Your task to perform on an android device: toggle javascript in the chrome app Image 0: 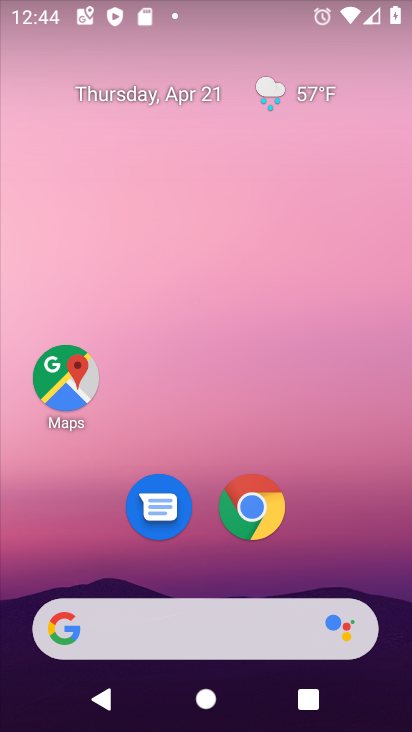
Step 0: click (253, 509)
Your task to perform on an android device: toggle javascript in the chrome app Image 1: 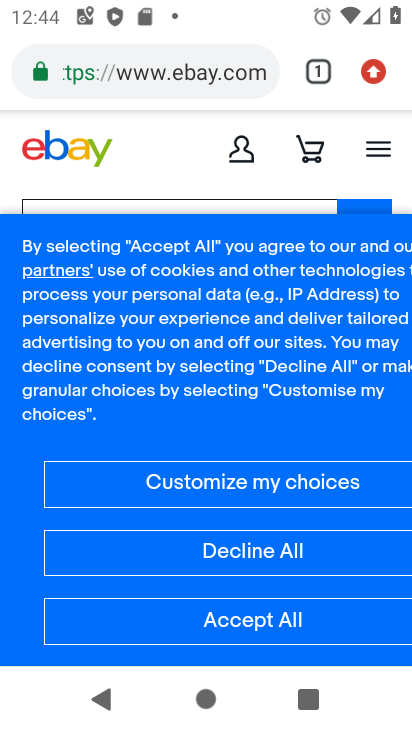
Step 1: click (375, 70)
Your task to perform on an android device: toggle javascript in the chrome app Image 2: 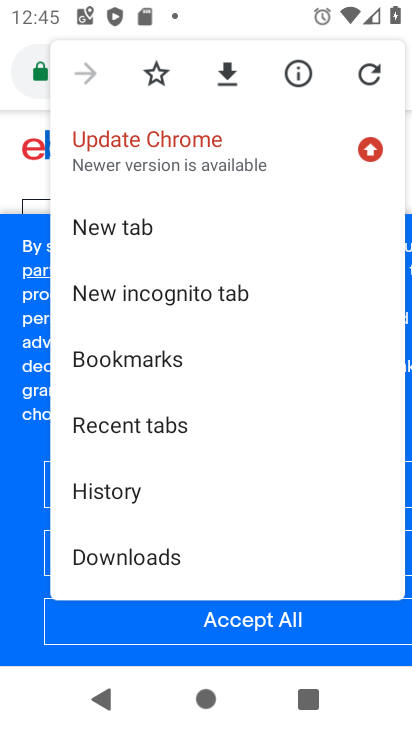
Step 2: drag from (123, 471) to (231, 306)
Your task to perform on an android device: toggle javascript in the chrome app Image 3: 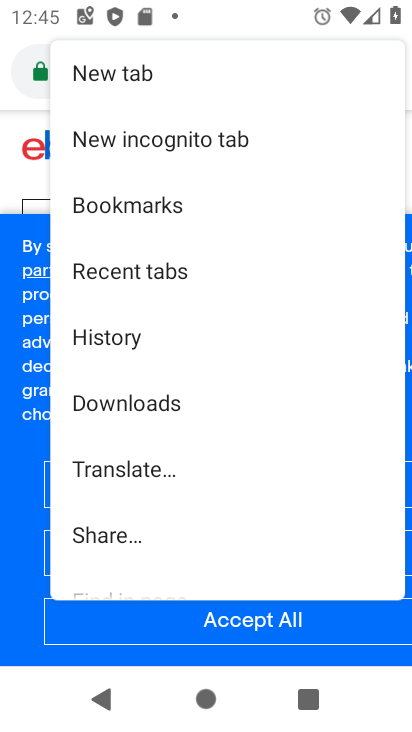
Step 3: drag from (170, 429) to (225, 303)
Your task to perform on an android device: toggle javascript in the chrome app Image 4: 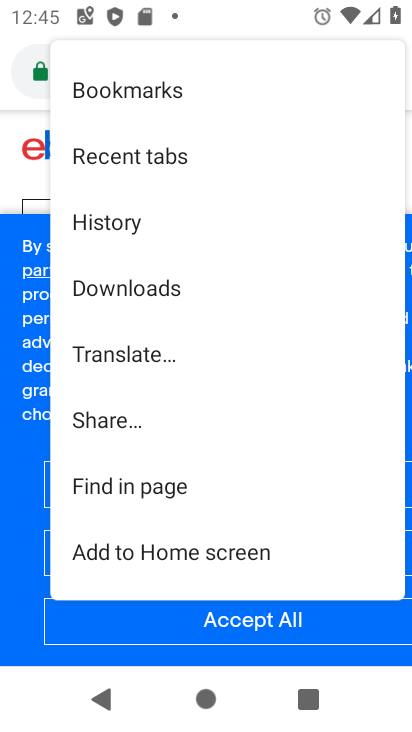
Step 4: drag from (166, 446) to (236, 340)
Your task to perform on an android device: toggle javascript in the chrome app Image 5: 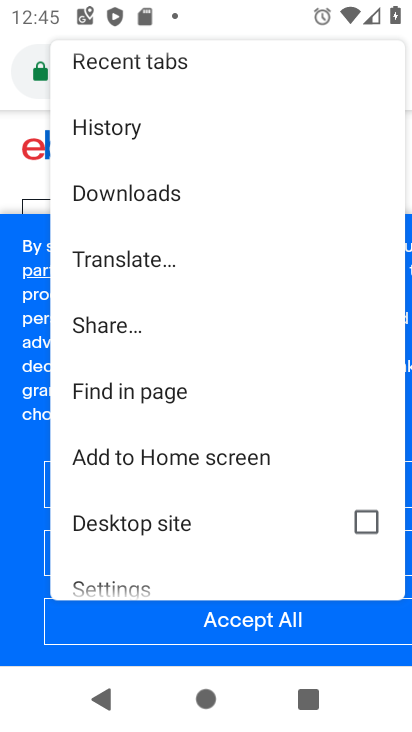
Step 5: drag from (179, 492) to (230, 362)
Your task to perform on an android device: toggle javascript in the chrome app Image 6: 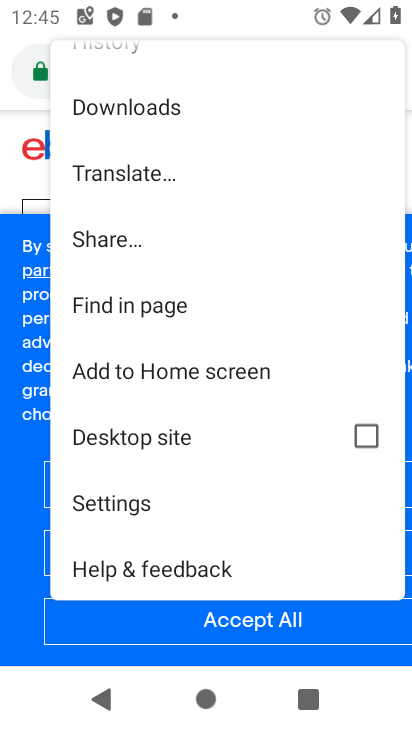
Step 6: click (146, 498)
Your task to perform on an android device: toggle javascript in the chrome app Image 7: 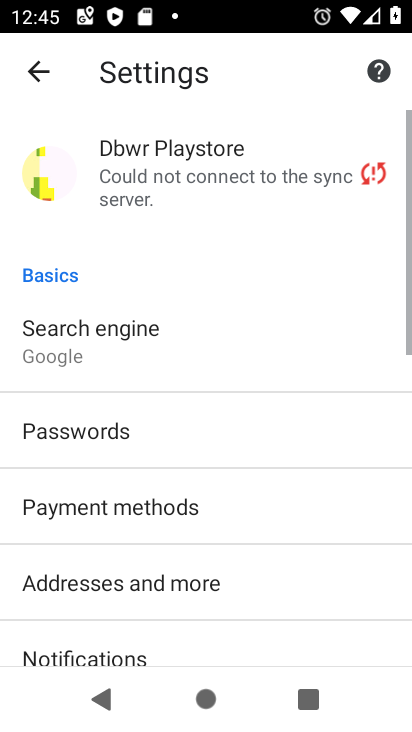
Step 7: drag from (160, 443) to (218, 336)
Your task to perform on an android device: toggle javascript in the chrome app Image 8: 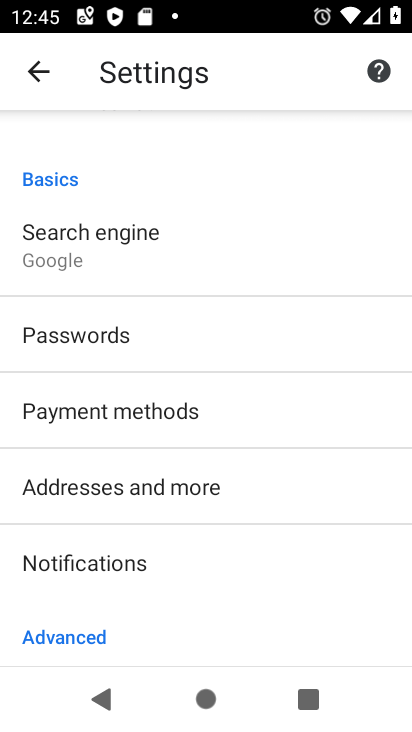
Step 8: drag from (138, 465) to (219, 364)
Your task to perform on an android device: toggle javascript in the chrome app Image 9: 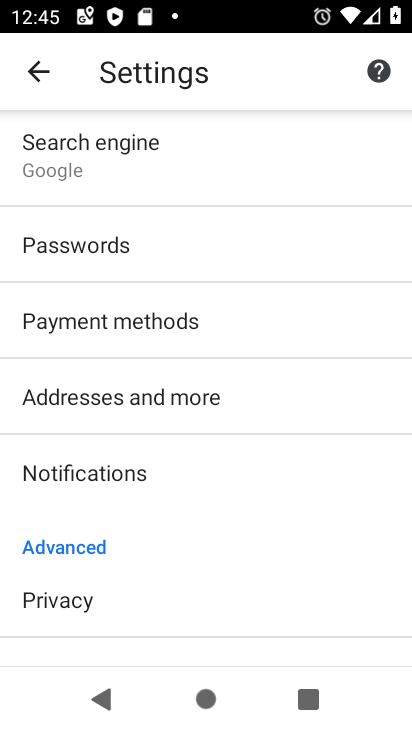
Step 9: drag from (158, 466) to (250, 350)
Your task to perform on an android device: toggle javascript in the chrome app Image 10: 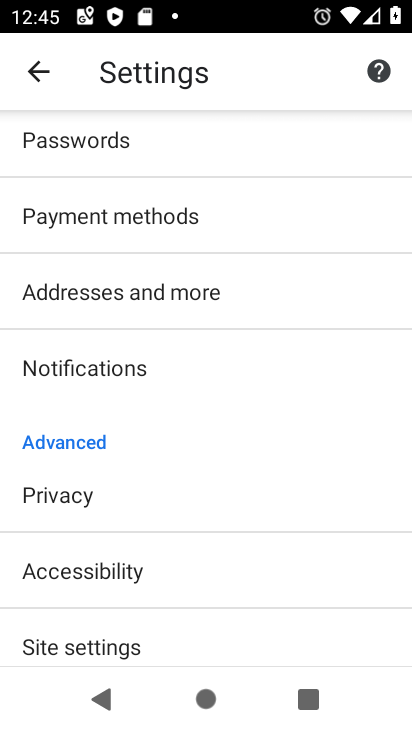
Step 10: drag from (138, 508) to (214, 411)
Your task to perform on an android device: toggle javascript in the chrome app Image 11: 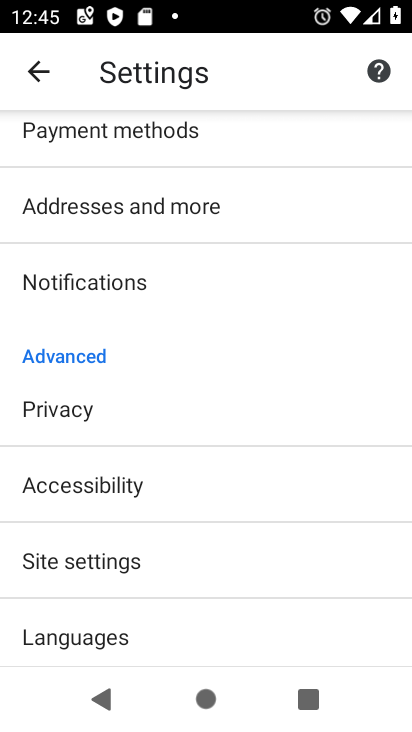
Step 11: click (99, 556)
Your task to perform on an android device: toggle javascript in the chrome app Image 12: 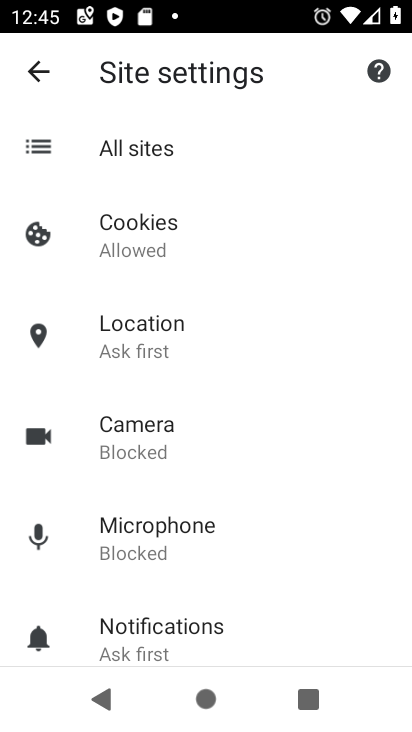
Step 12: drag from (199, 458) to (259, 373)
Your task to perform on an android device: toggle javascript in the chrome app Image 13: 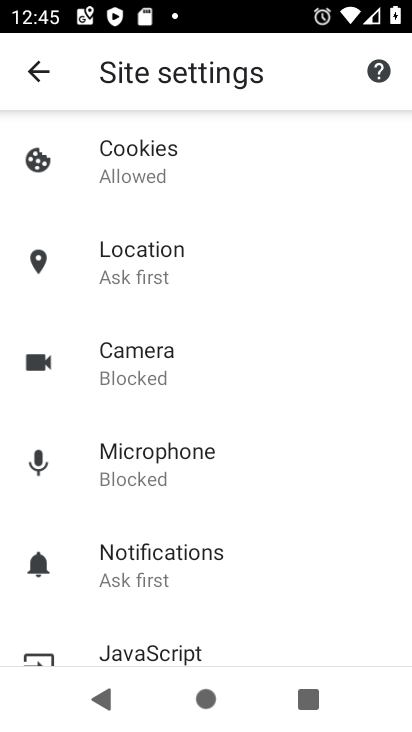
Step 13: drag from (182, 484) to (261, 384)
Your task to perform on an android device: toggle javascript in the chrome app Image 14: 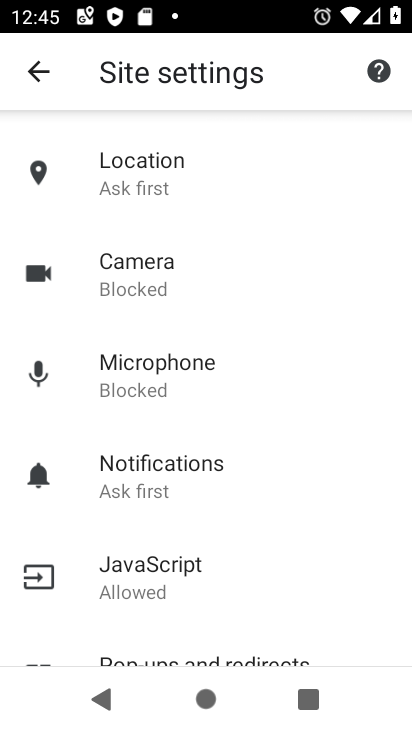
Step 14: drag from (188, 513) to (280, 391)
Your task to perform on an android device: toggle javascript in the chrome app Image 15: 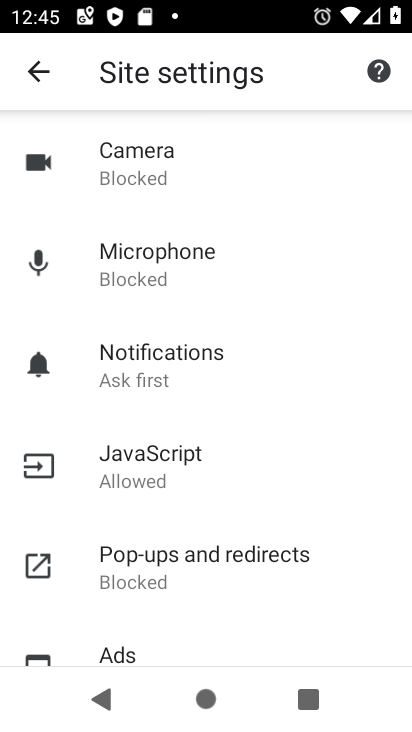
Step 15: click (201, 453)
Your task to perform on an android device: toggle javascript in the chrome app Image 16: 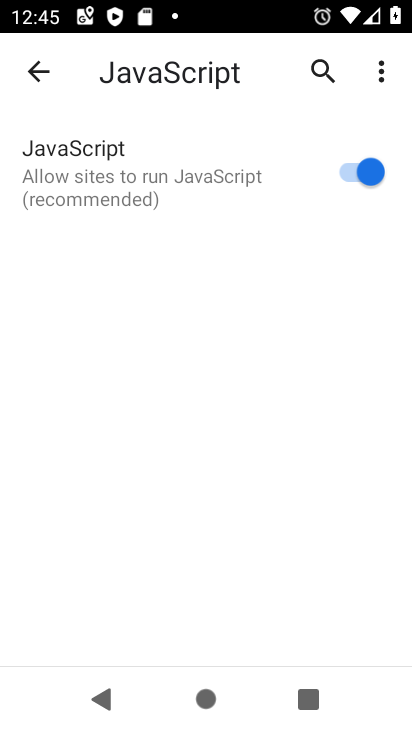
Step 16: click (379, 178)
Your task to perform on an android device: toggle javascript in the chrome app Image 17: 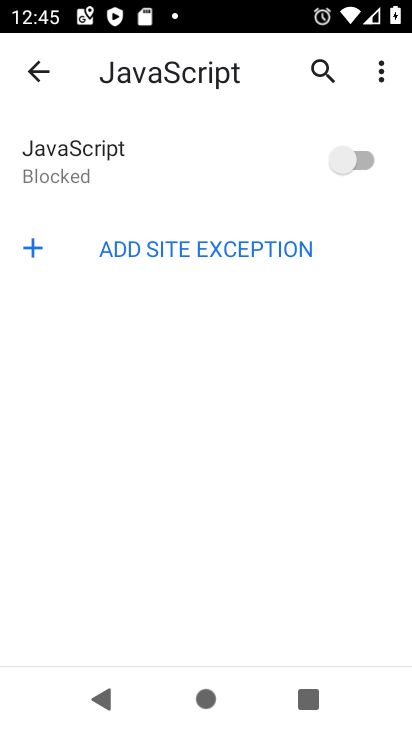
Step 17: task complete